Your task to perform on an android device: turn off improve location accuracy Image 0: 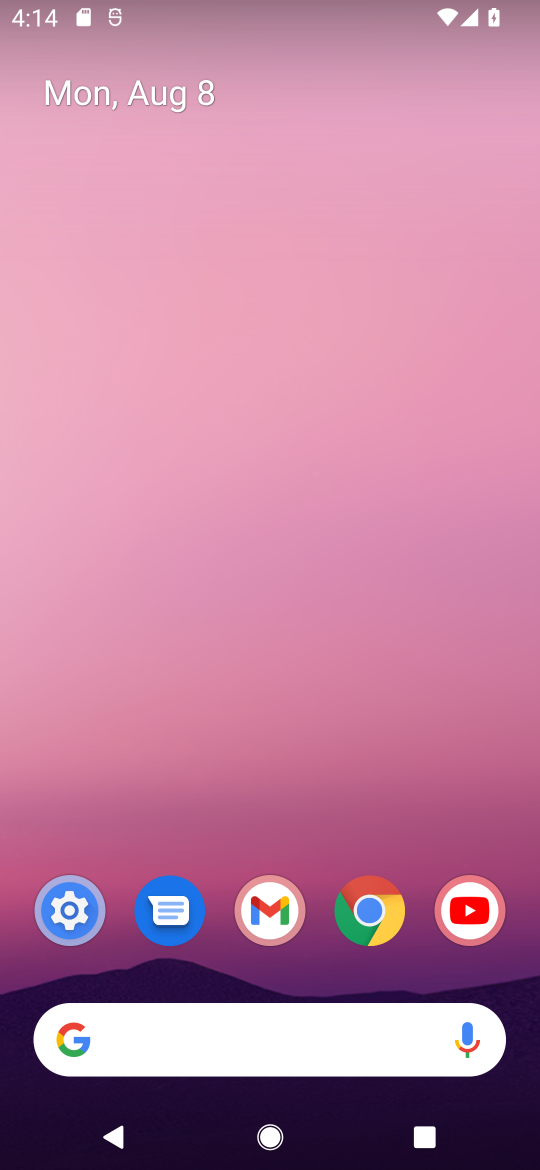
Step 0: drag from (300, 849) to (372, 278)
Your task to perform on an android device: turn off improve location accuracy Image 1: 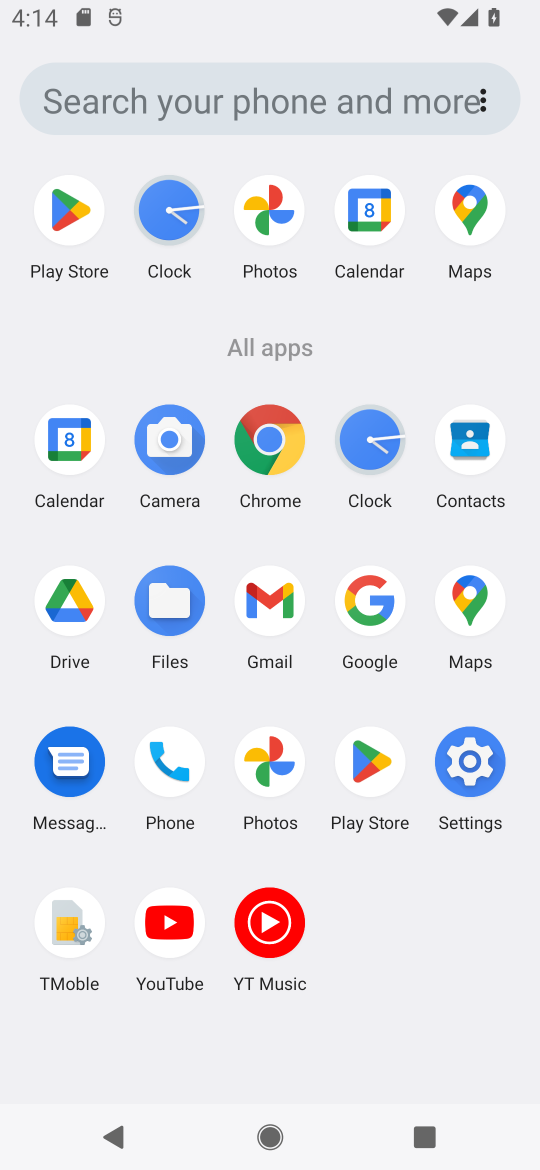
Step 1: click (453, 758)
Your task to perform on an android device: turn off improve location accuracy Image 2: 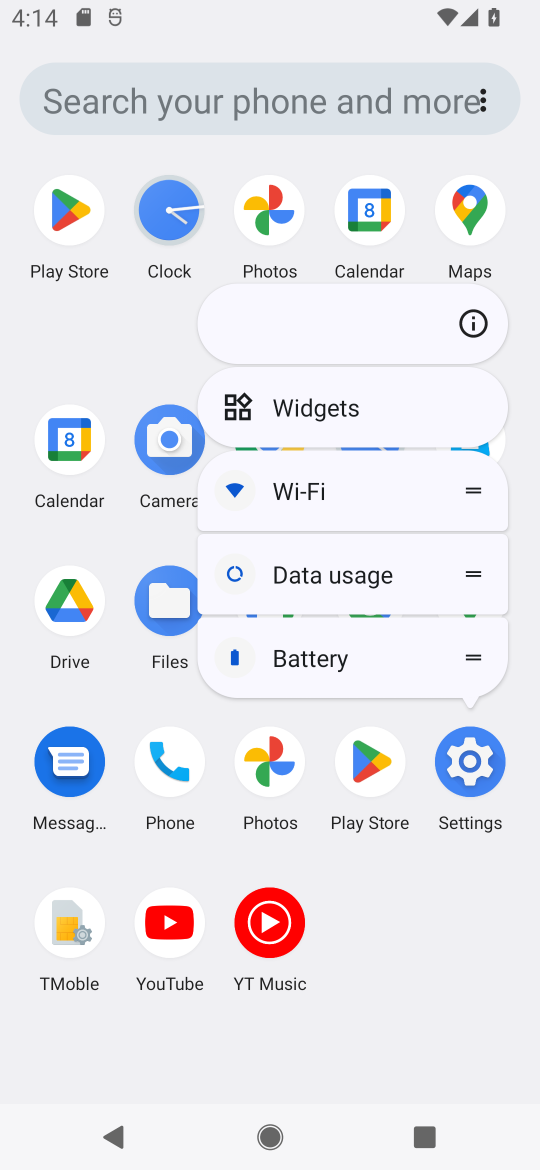
Step 2: click (485, 759)
Your task to perform on an android device: turn off improve location accuracy Image 3: 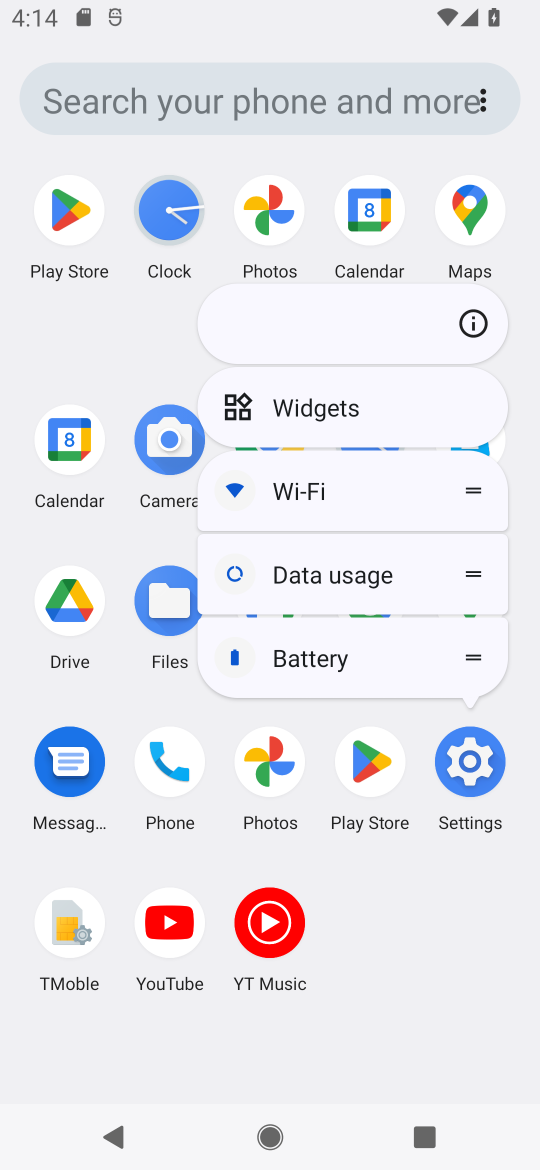
Step 3: click (473, 763)
Your task to perform on an android device: turn off improve location accuracy Image 4: 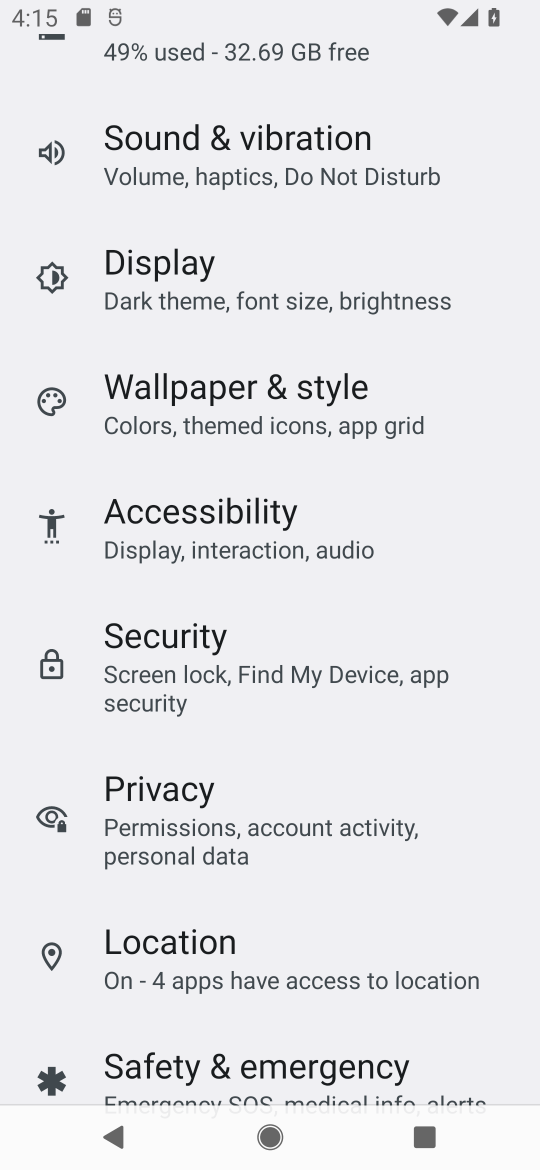
Step 4: click (176, 969)
Your task to perform on an android device: turn off improve location accuracy Image 5: 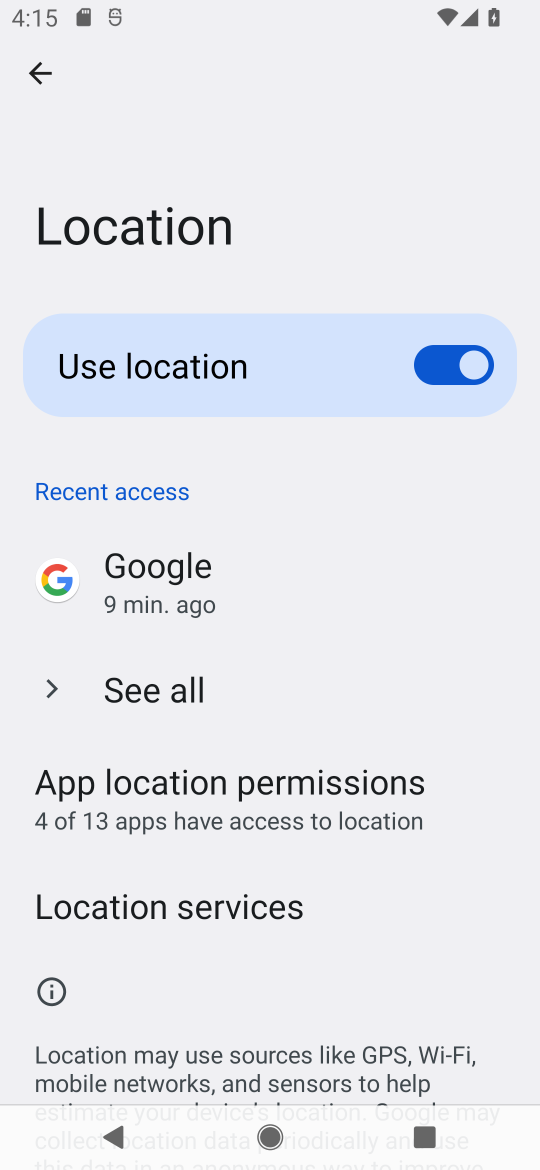
Step 5: drag from (265, 1025) to (290, 193)
Your task to perform on an android device: turn off improve location accuracy Image 6: 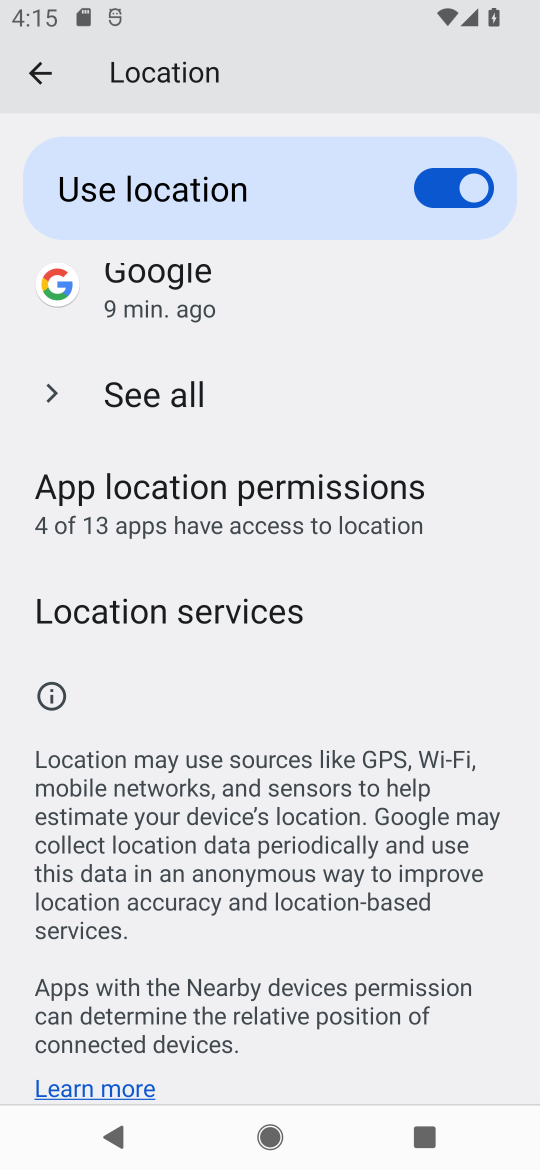
Step 6: drag from (381, 907) to (428, 169)
Your task to perform on an android device: turn off improve location accuracy Image 7: 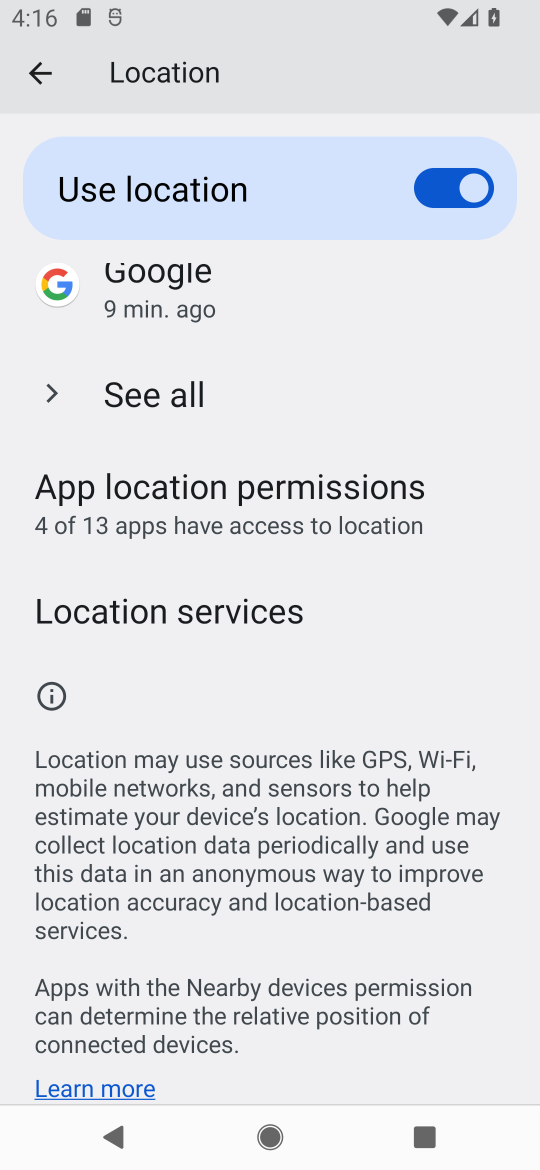
Step 7: drag from (181, 885) to (301, 167)
Your task to perform on an android device: turn off improve location accuracy Image 8: 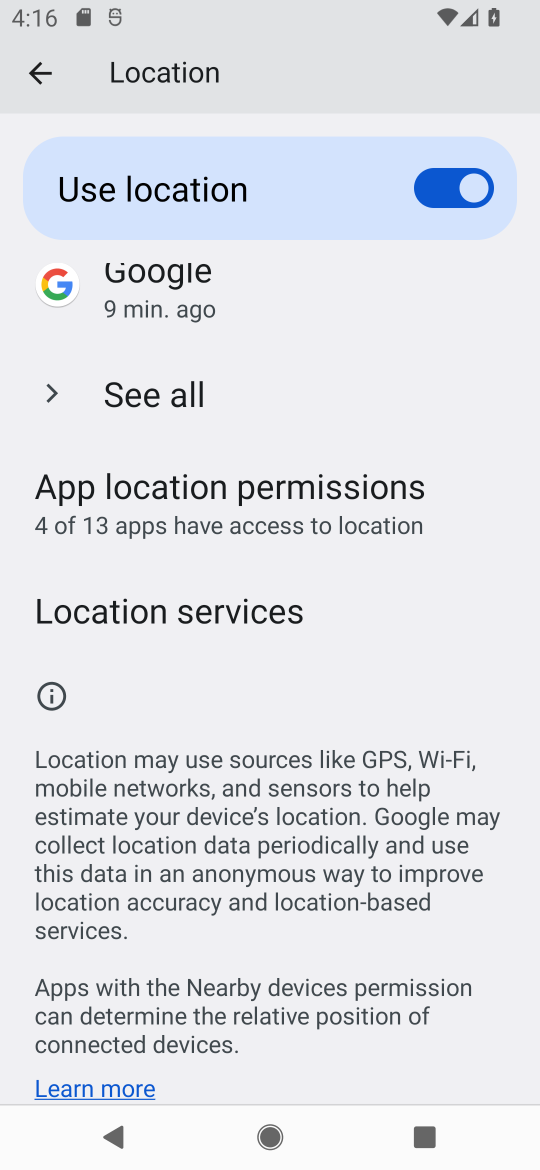
Step 8: click (203, 600)
Your task to perform on an android device: turn off improve location accuracy Image 9: 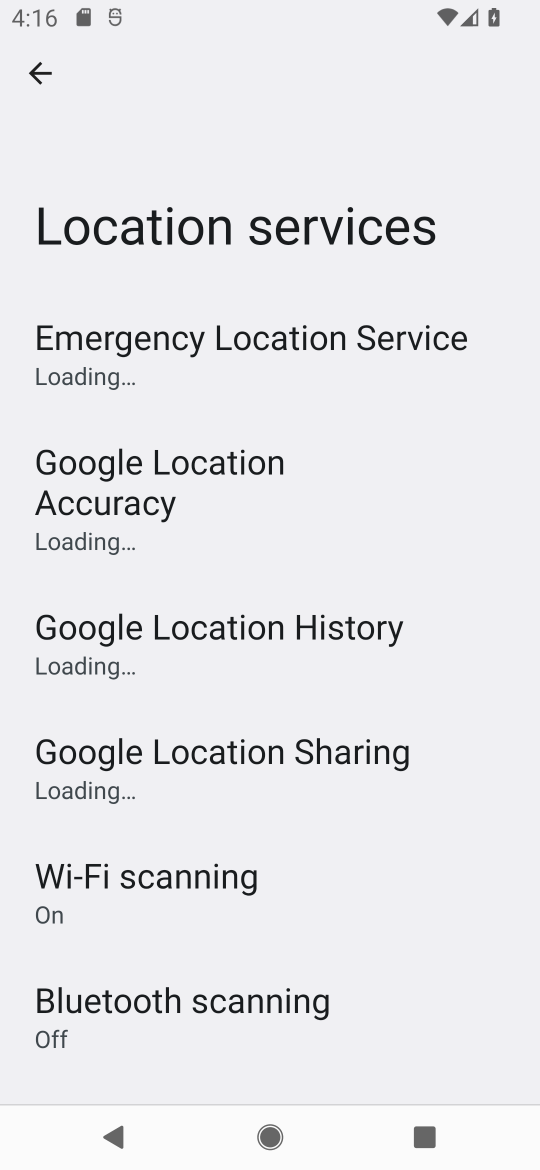
Step 9: click (148, 503)
Your task to perform on an android device: turn off improve location accuracy Image 10: 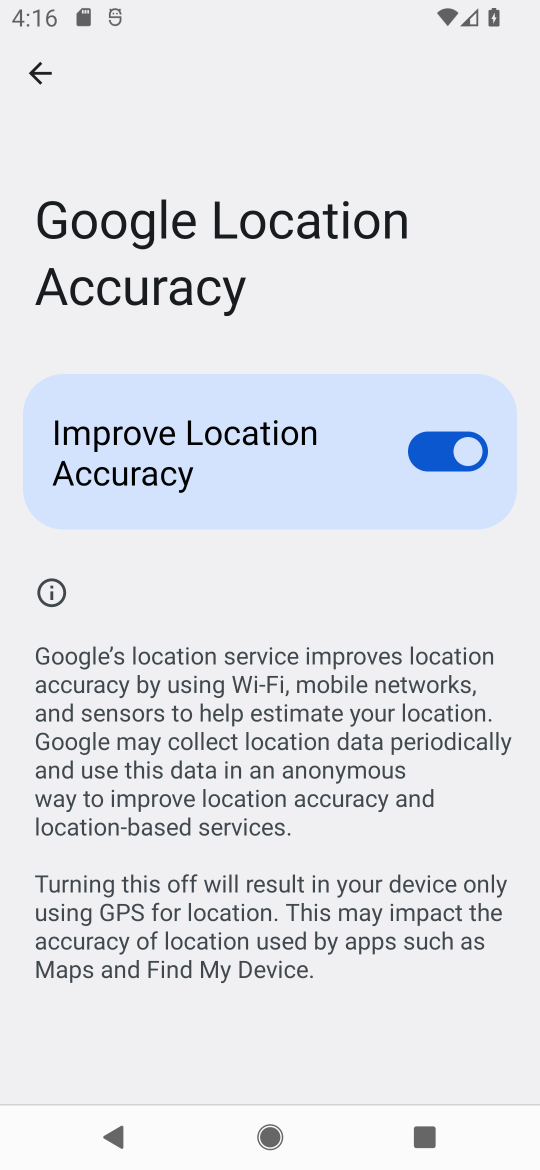
Step 10: click (429, 463)
Your task to perform on an android device: turn off improve location accuracy Image 11: 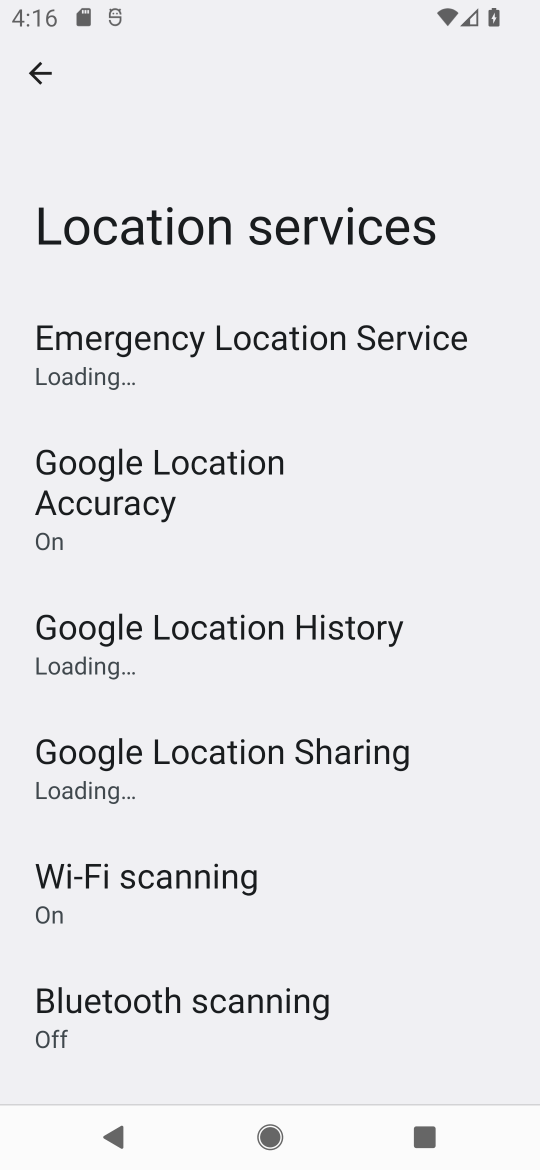
Step 11: task complete